Your task to perform on an android device: Open Google Image 0: 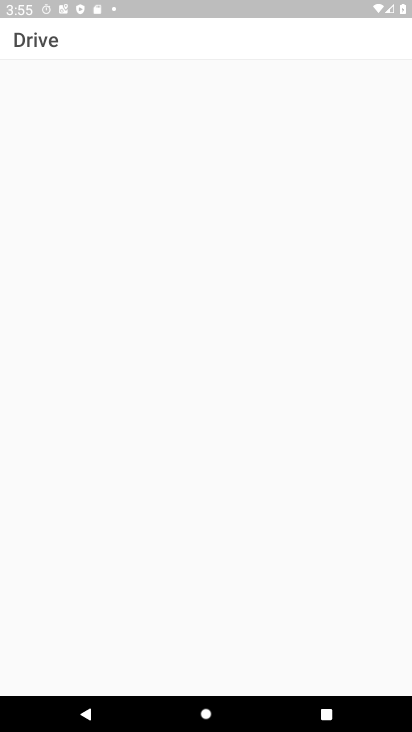
Step 0: press home button
Your task to perform on an android device: Open Google Image 1: 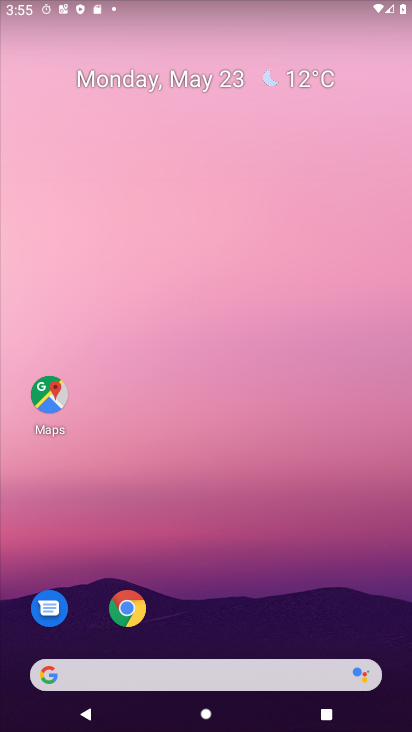
Step 1: drag from (257, 498) to (195, 27)
Your task to perform on an android device: Open Google Image 2: 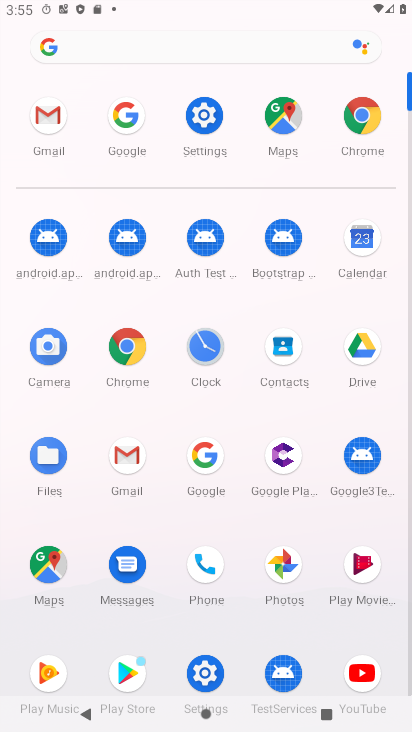
Step 2: click (213, 453)
Your task to perform on an android device: Open Google Image 3: 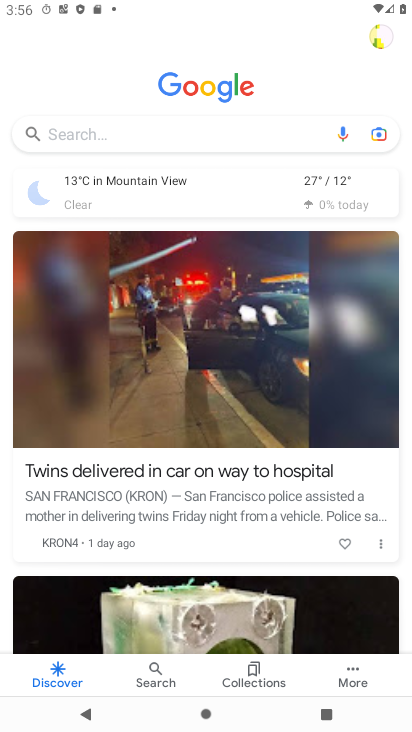
Step 3: task complete